Your task to perform on an android device: Search for razer kraken on newegg.com, select the first entry, add it to the cart, then select checkout. Image 0: 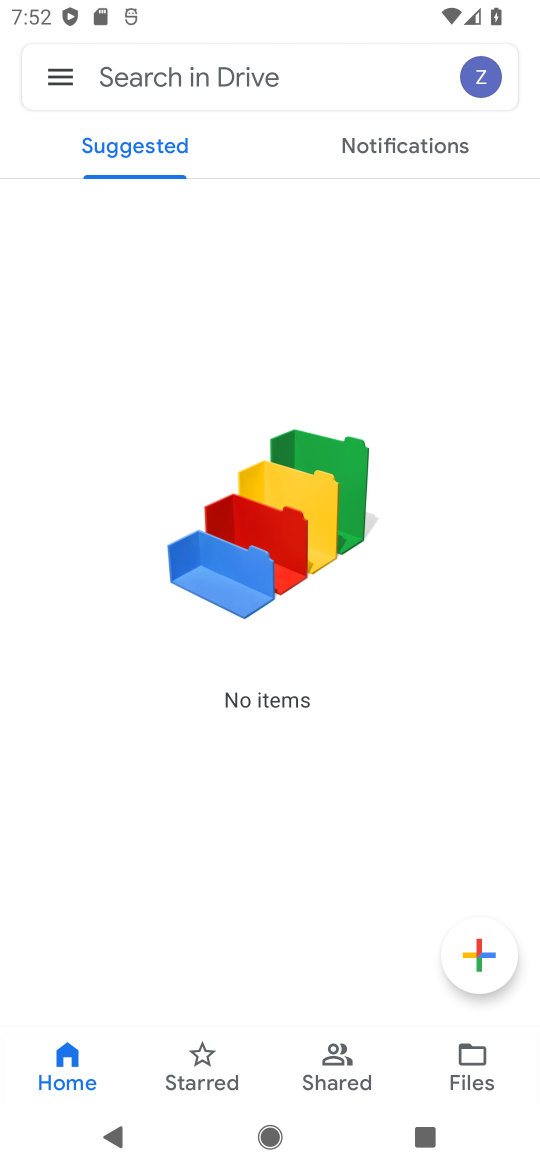
Step 0: press home button
Your task to perform on an android device: Search for razer kraken on newegg.com, select the first entry, add it to the cart, then select checkout. Image 1: 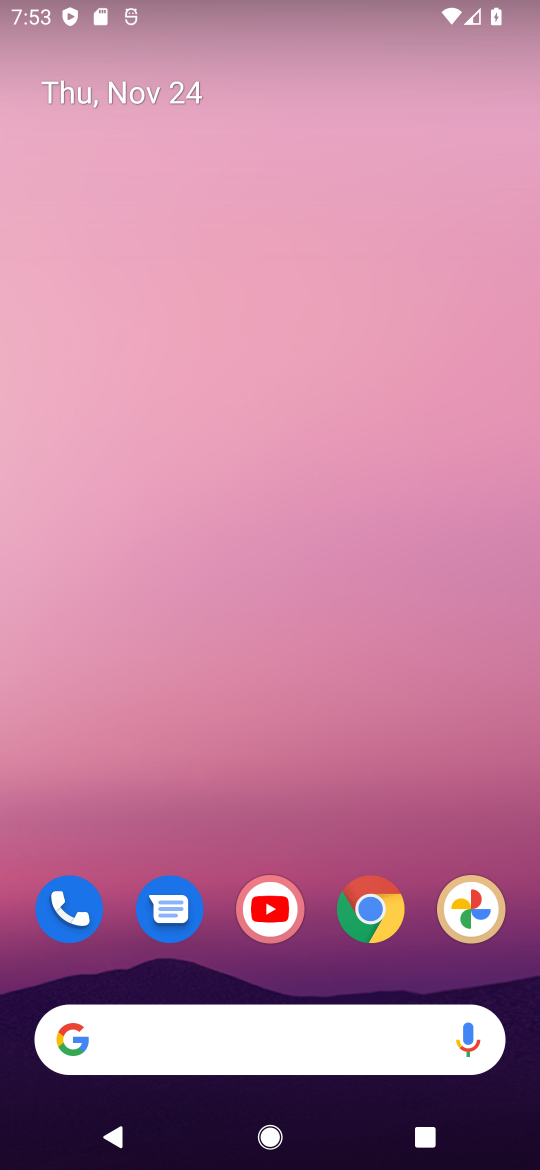
Step 1: click (378, 906)
Your task to perform on an android device: Search for razer kraken on newegg.com, select the first entry, add it to the cart, then select checkout. Image 2: 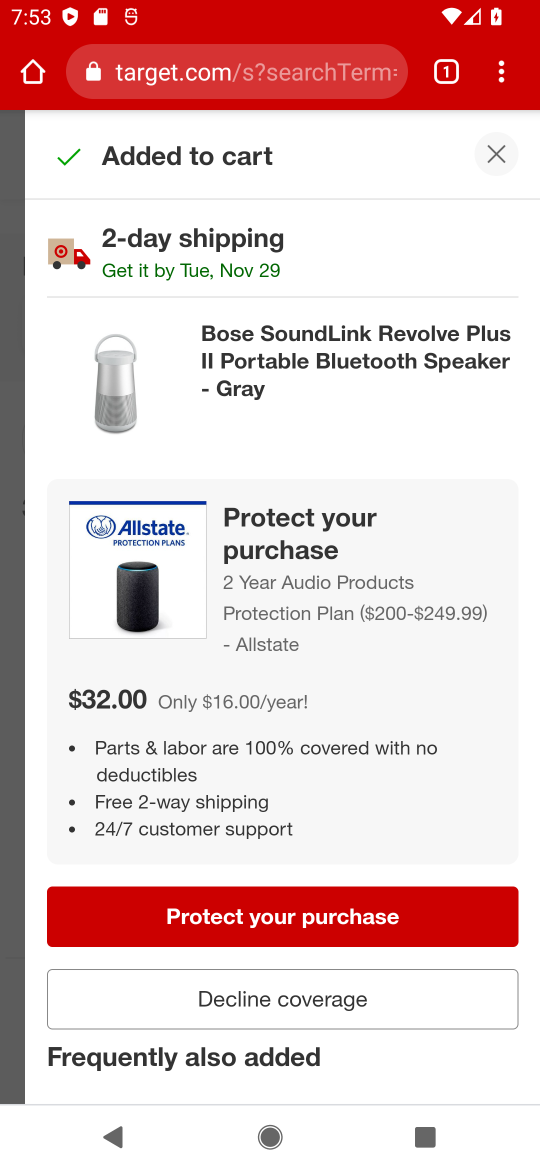
Step 2: click (271, 63)
Your task to perform on an android device: Search for razer kraken on newegg.com, select the first entry, add it to the cart, then select checkout. Image 3: 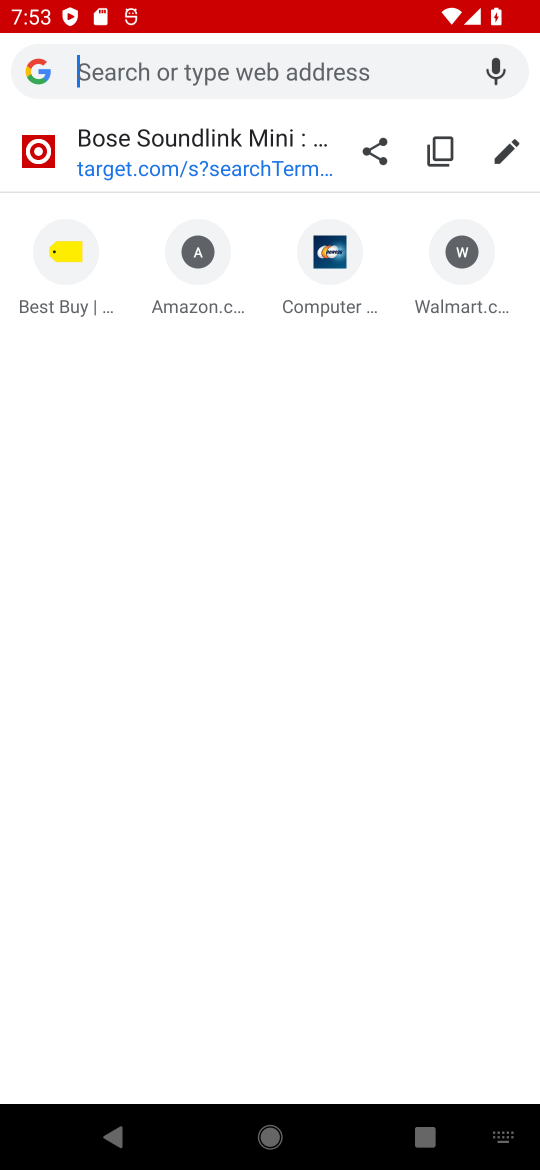
Step 3: type "newegg.com"
Your task to perform on an android device: Search for razer kraken on newegg.com, select the first entry, add it to the cart, then select checkout. Image 4: 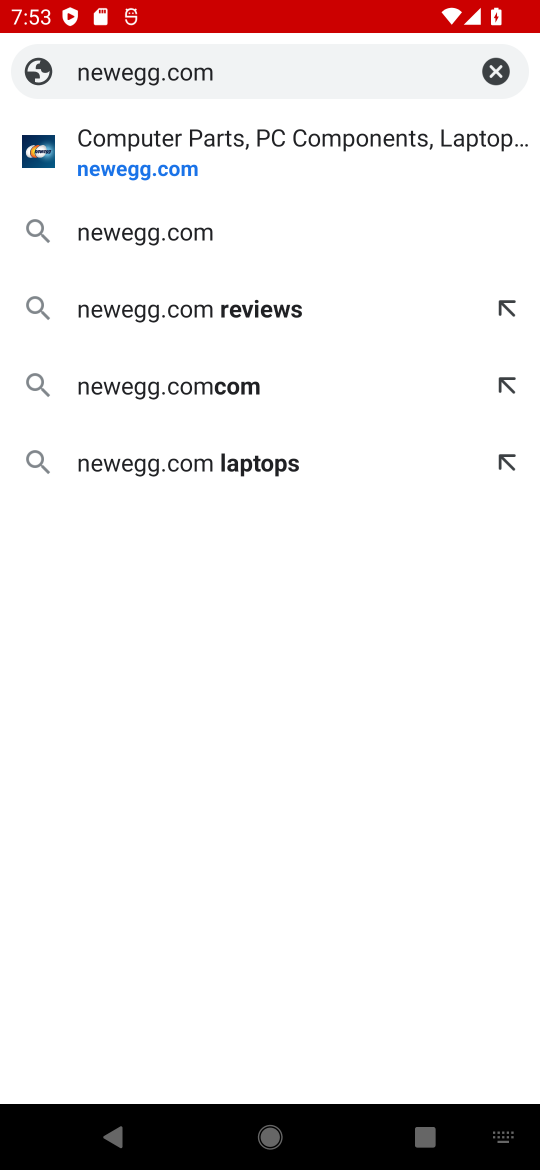
Step 4: click (254, 129)
Your task to perform on an android device: Search for razer kraken on newegg.com, select the first entry, add it to the cart, then select checkout. Image 5: 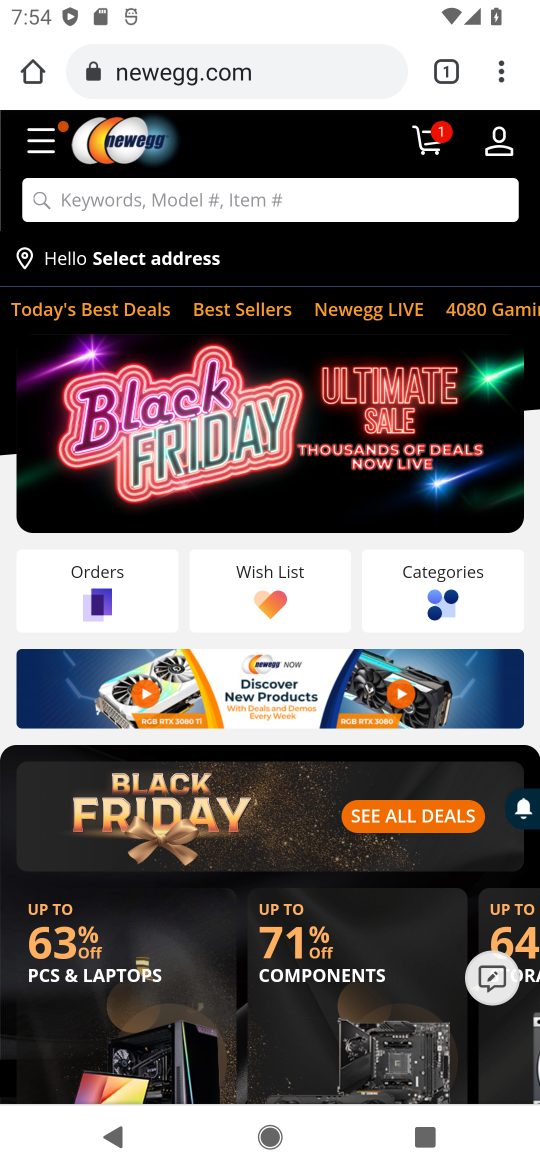
Step 5: click (269, 213)
Your task to perform on an android device: Search for razer kraken on newegg.com, select the first entry, add it to the cart, then select checkout. Image 6: 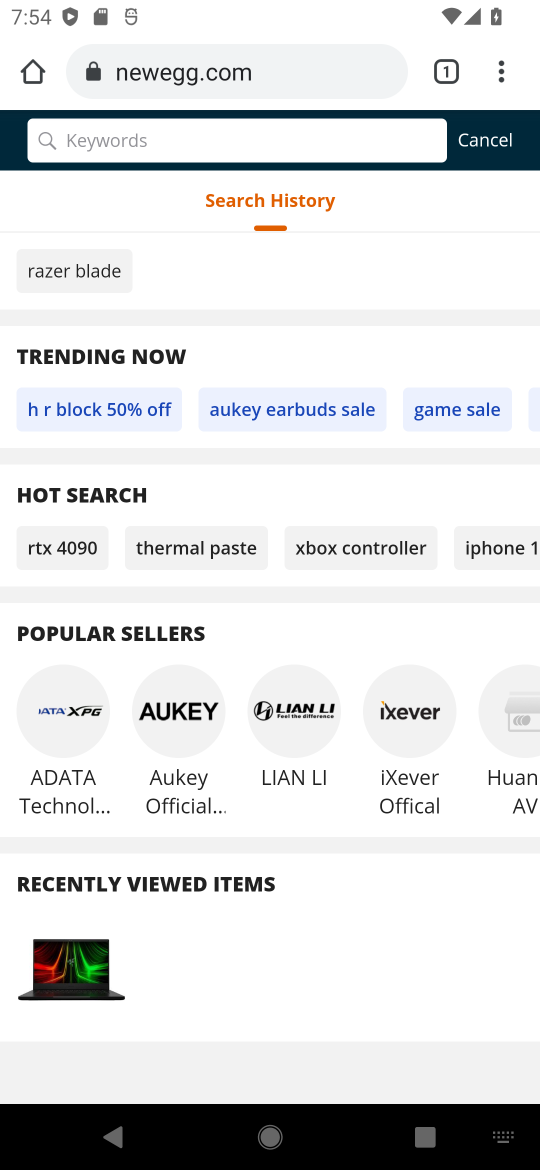
Step 6: type "razer kraken"
Your task to perform on an android device: Search for razer kraken on newegg.com, select the first entry, add it to the cart, then select checkout. Image 7: 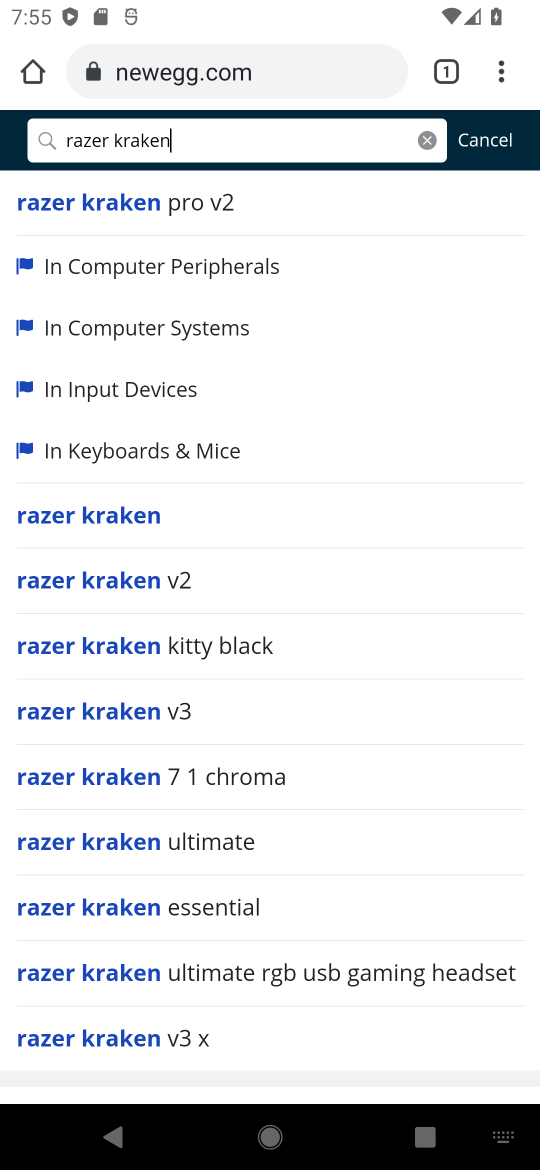
Step 7: press enter
Your task to perform on an android device: Search for razer kraken on newegg.com, select the first entry, add it to the cart, then select checkout. Image 8: 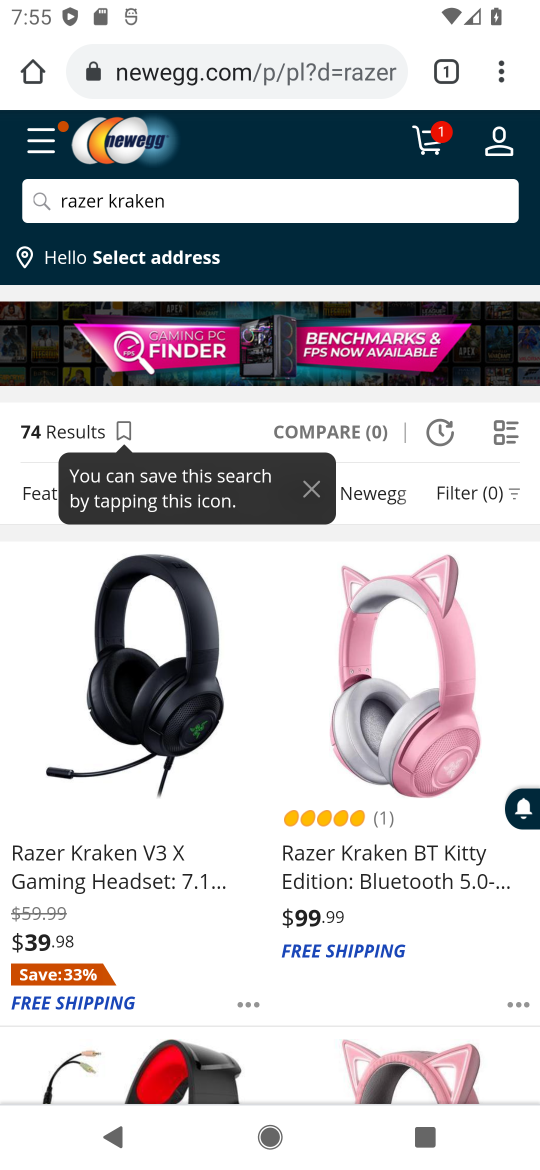
Step 8: click (126, 859)
Your task to perform on an android device: Search for razer kraken on newegg.com, select the first entry, add it to the cart, then select checkout. Image 9: 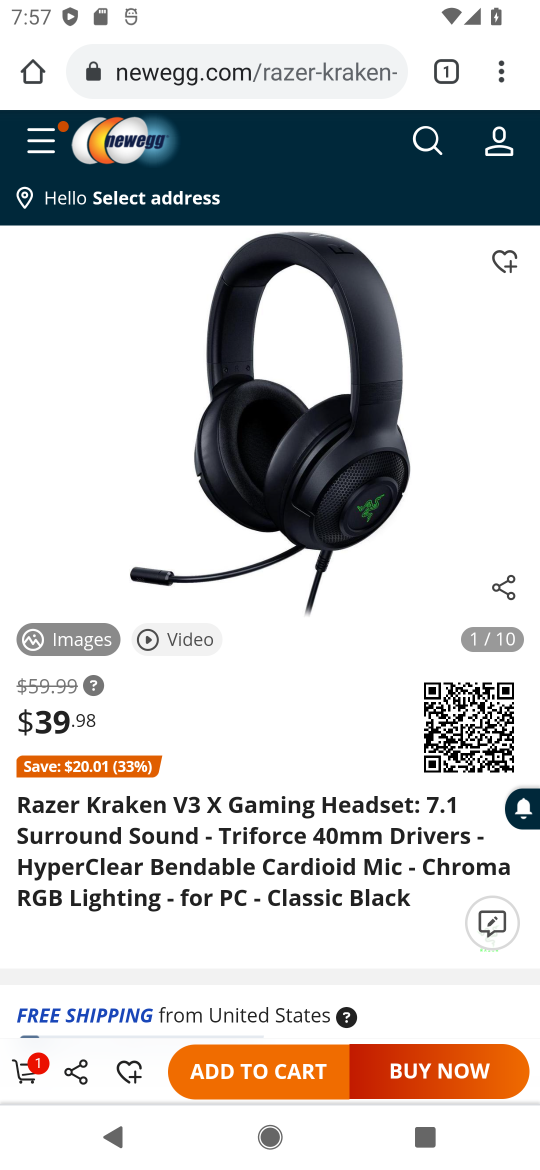
Step 9: click (290, 1061)
Your task to perform on an android device: Search for razer kraken on newegg.com, select the first entry, add it to the cart, then select checkout. Image 10: 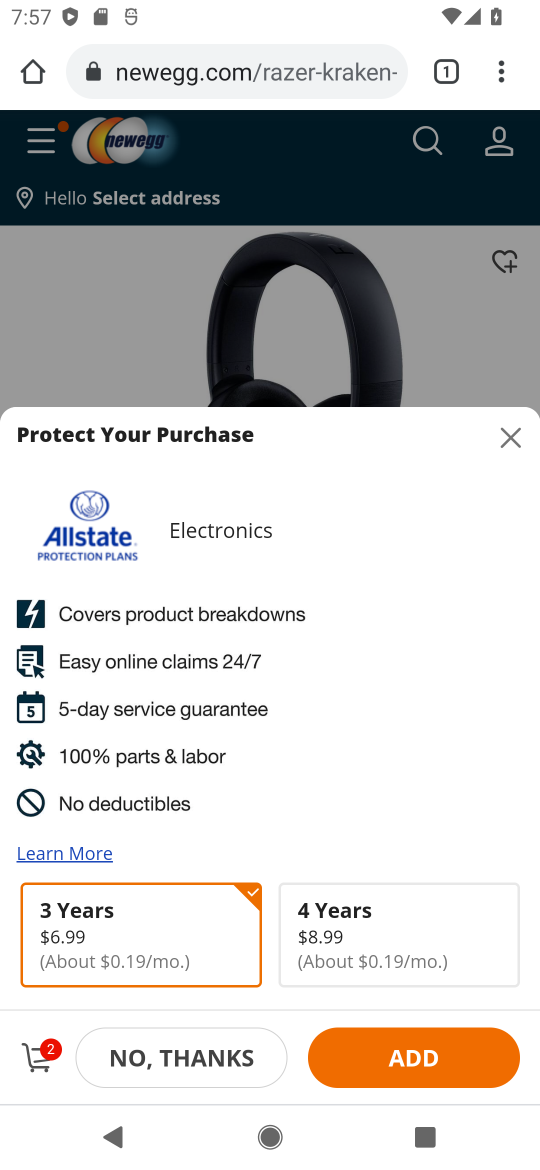
Step 10: click (46, 1047)
Your task to perform on an android device: Search for razer kraken on newegg.com, select the first entry, add it to the cart, then select checkout. Image 11: 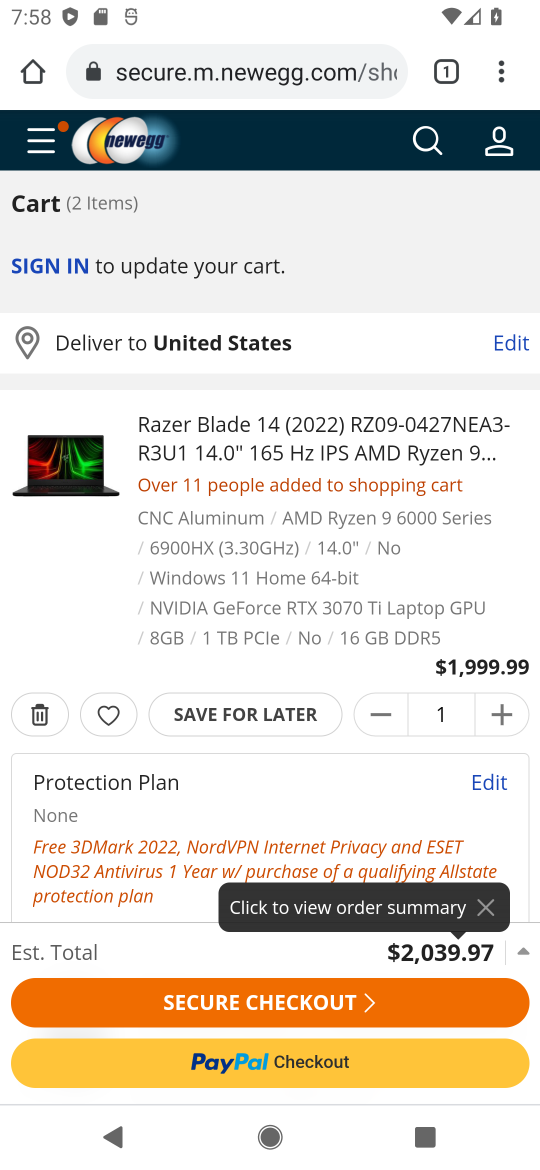
Step 11: click (377, 1006)
Your task to perform on an android device: Search for razer kraken on newegg.com, select the first entry, add it to the cart, then select checkout. Image 12: 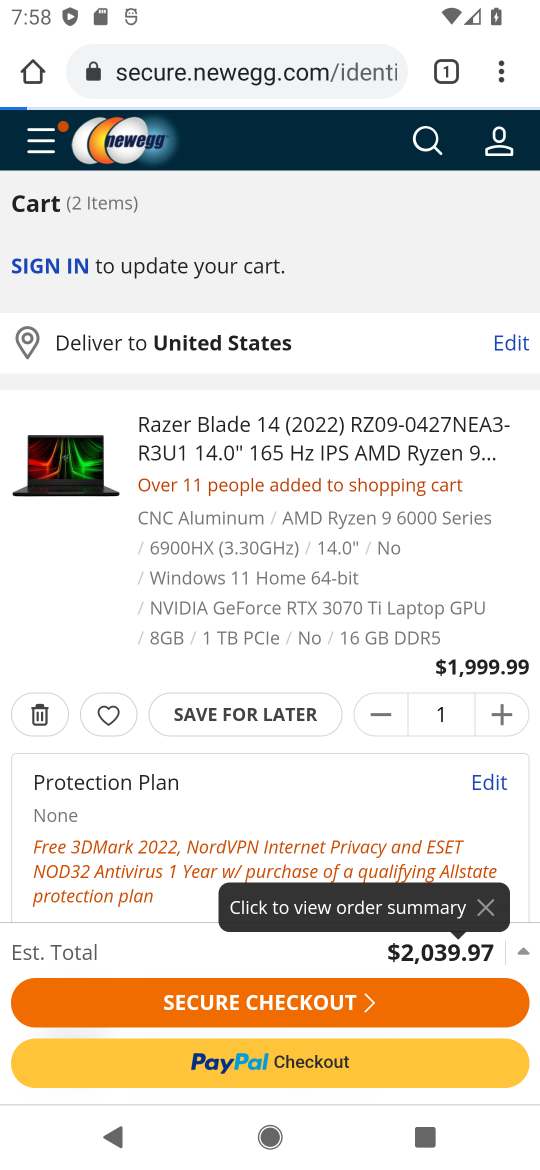
Step 12: task complete